Your task to perform on an android device: Is it going to rain this weekend? Image 0: 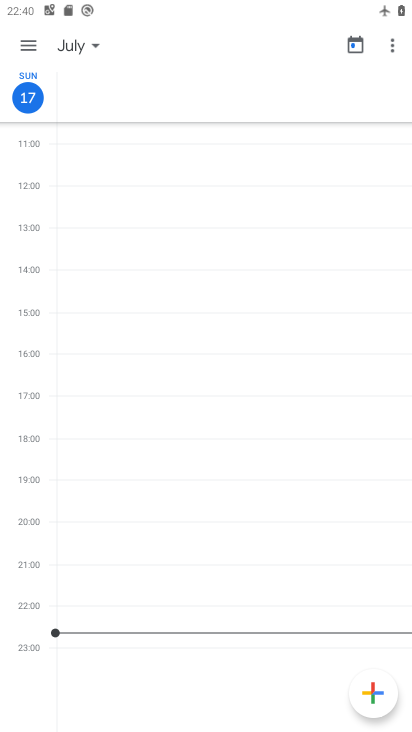
Step 0: press home button
Your task to perform on an android device: Is it going to rain this weekend? Image 1: 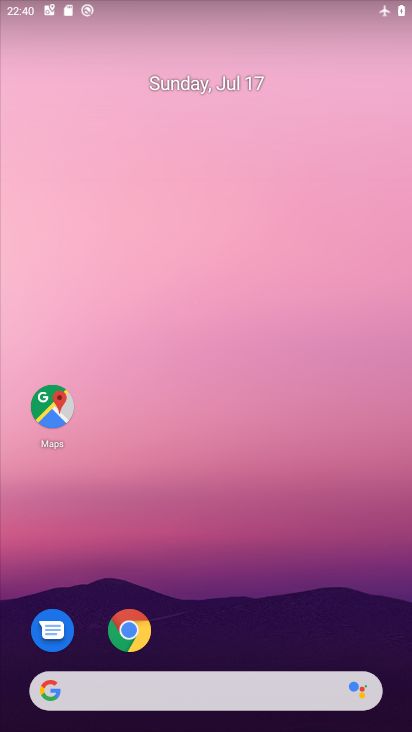
Step 1: click (204, 695)
Your task to perform on an android device: Is it going to rain this weekend? Image 2: 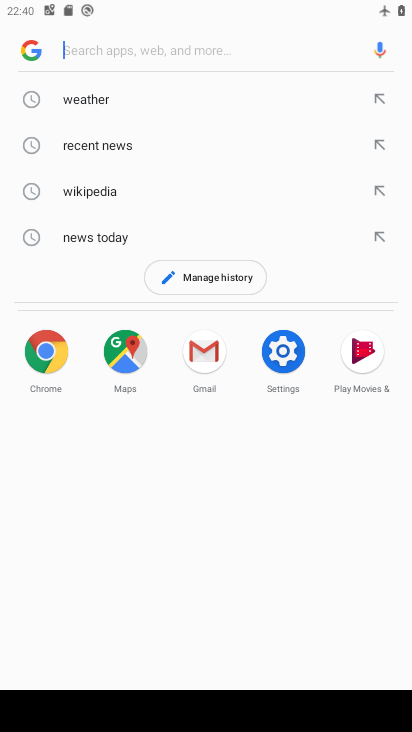
Step 2: click (82, 101)
Your task to perform on an android device: Is it going to rain this weekend? Image 3: 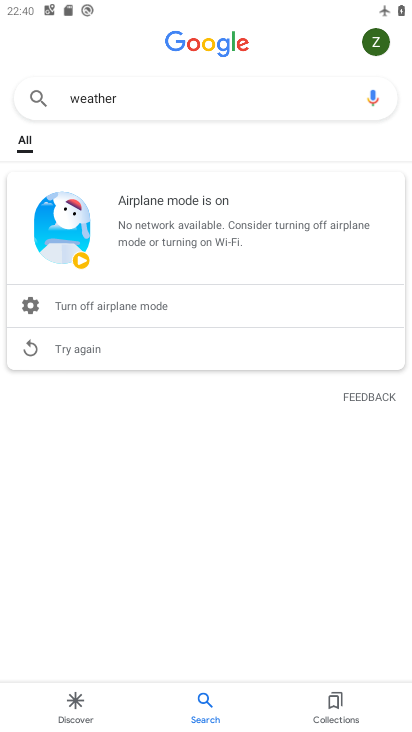
Step 3: task complete